Your task to perform on an android device: refresh tabs in the chrome app Image 0: 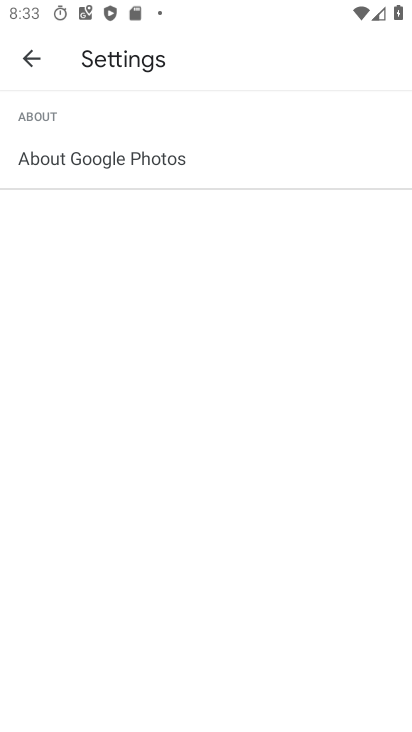
Step 0: click (32, 53)
Your task to perform on an android device: refresh tabs in the chrome app Image 1: 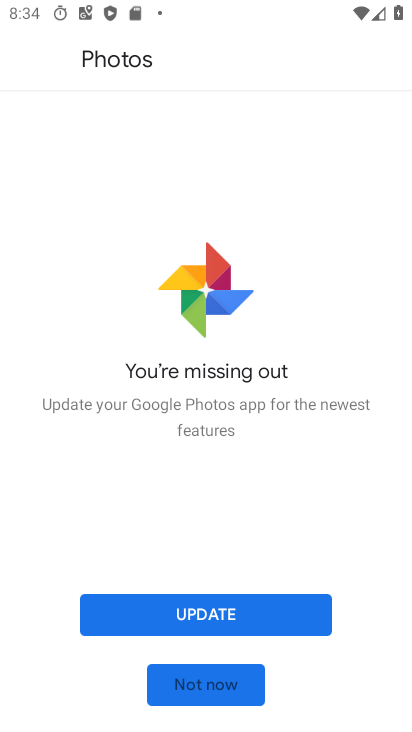
Step 1: press back button
Your task to perform on an android device: refresh tabs in the chrome app Image 2: 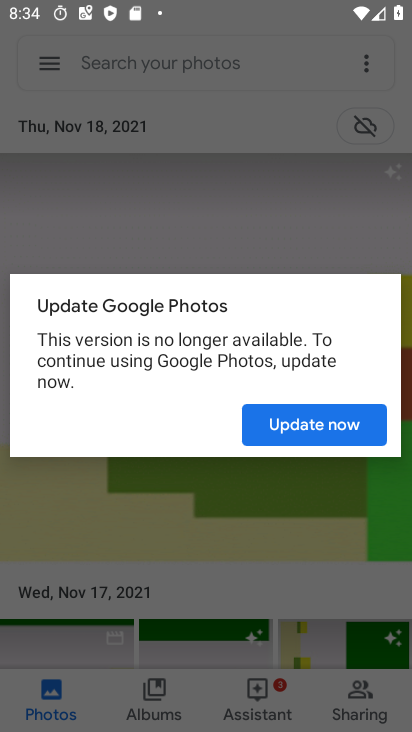
Step 2: click (304, 182)
Your task to perform on an android device: refresh tabs in the chrome app Image 3: 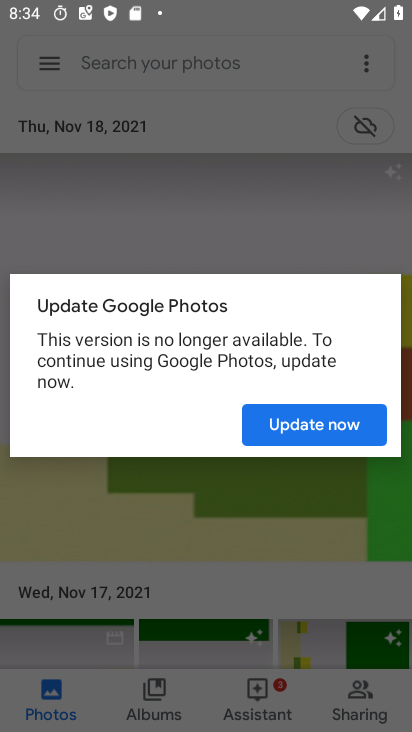
Step 3: click (304, 182)
Your task to perform on an android device: refresh tabs in the chrome app Image 4: 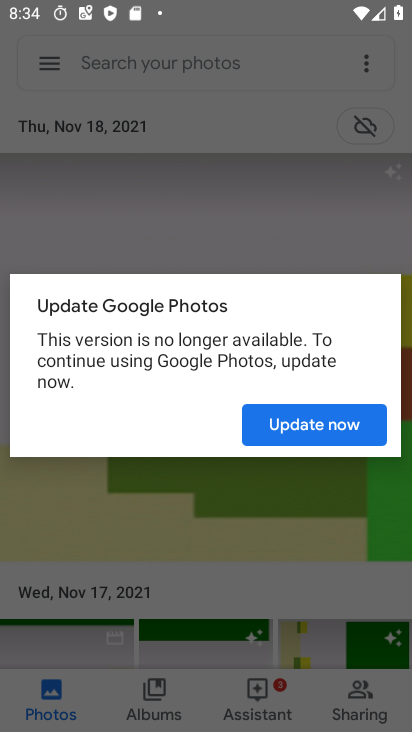
Step 4: click (289, 185)
Your task to perform on an android device: refresh tabs in the chrome app Image 5: 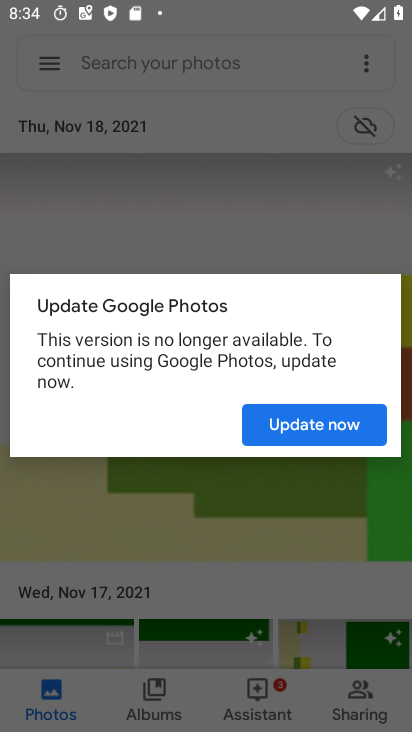
Step 5: click (290, 186)
Your task to perform on an android device: refresh tabs in the chrome app Image 6: 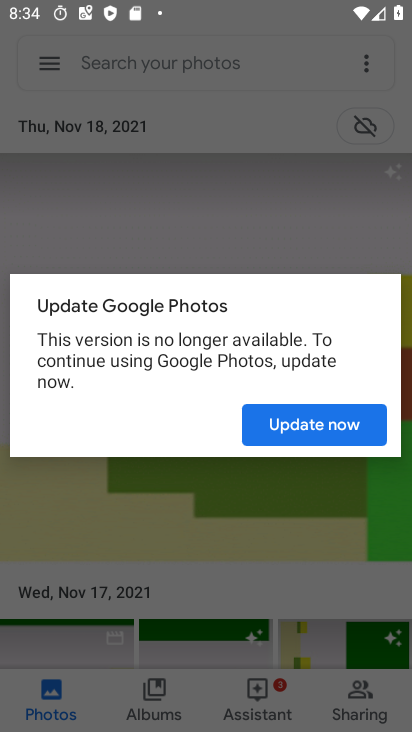
Step 6: click (290, 190)
Your task to perform on an android device: refresh tabs in the chrome app Image 7: 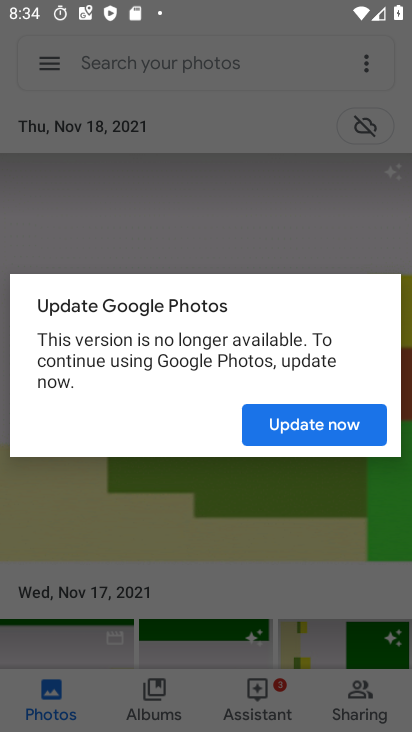
Step 7: press back button
Your task to perform on an android device: refresh tabs in the chrome app Image 8: 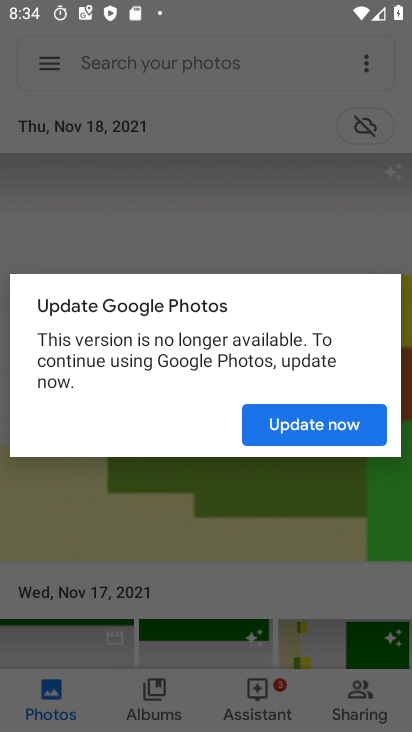
Step 8: press back button
Your task to perform on an android device: refresh tabs in the chrome app Image 9: 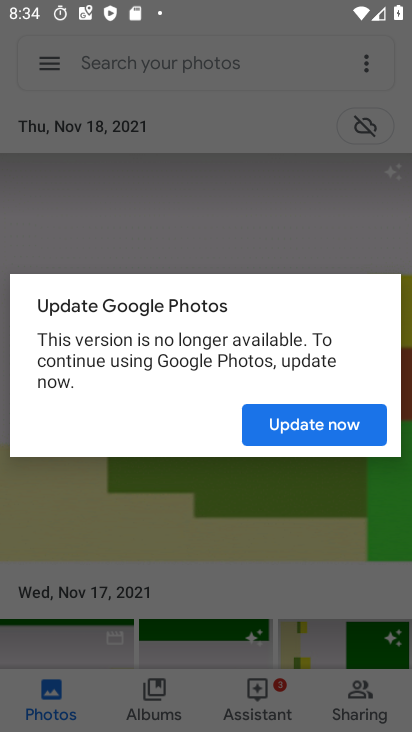
Step 9: press back button
Your task to perform on an android device: refresh tabs in the chrome app Image 10: 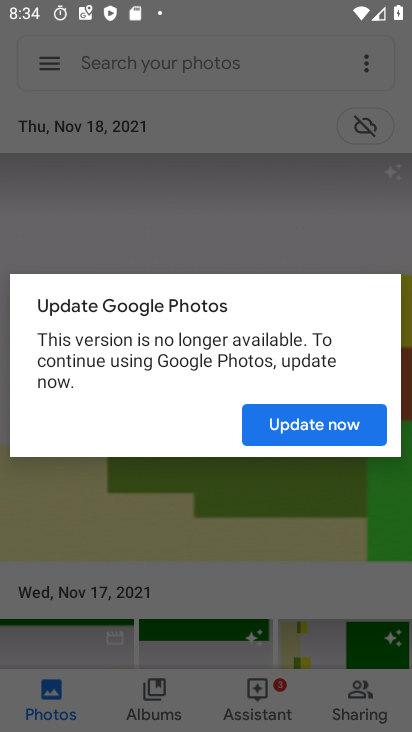
Step 10: press home button
Your task to perform on an android device: refresh tabs in the chrome app Image 11: 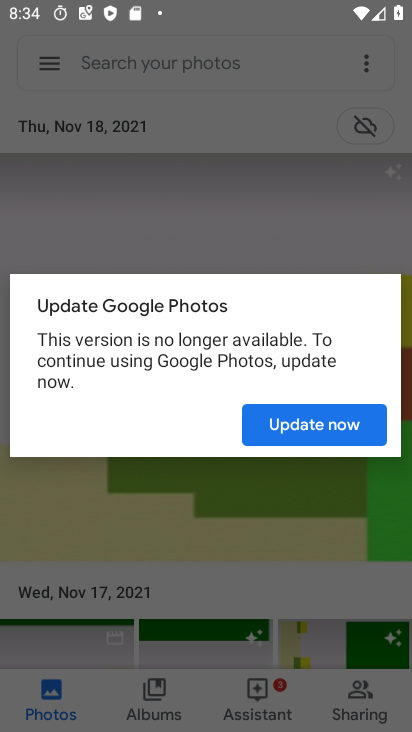
Step 11: press home button
Your task to perform on an android device: refresh tabs in the chrome app Image 12: 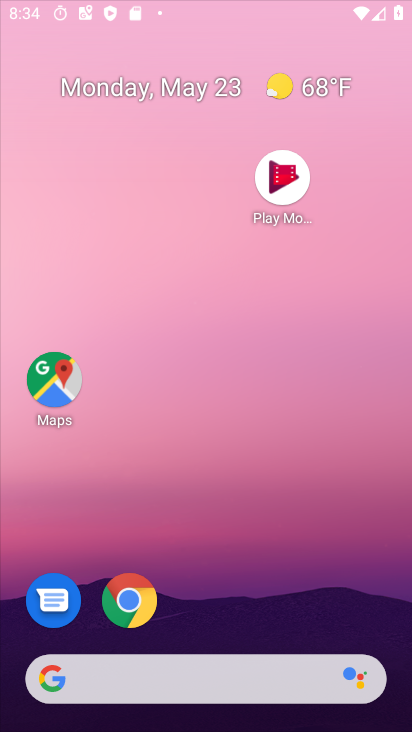
Step 12: press home button
Your task to perform on an android device: refresh tabs in the chrome app Image 13: 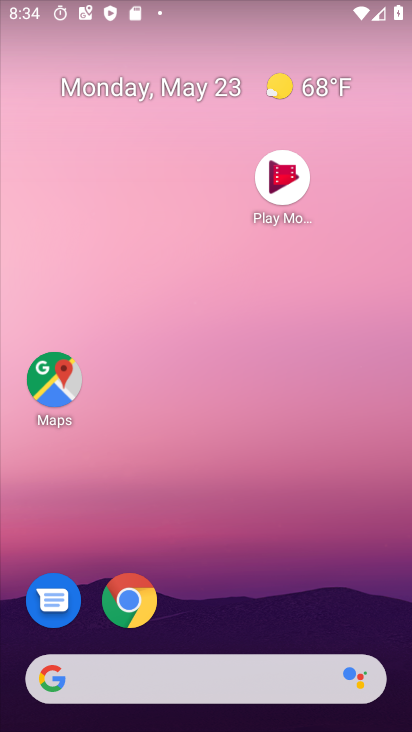
Step 13: drag from (293, 694) to (200, 169)
Your task to perform on an android device: refresh tabs in the chrome app Image 14: 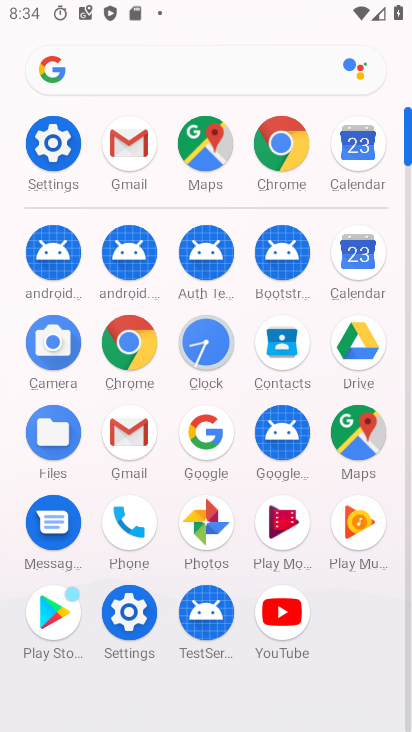
Step 14: drag from (276, 143) to (246, 319)
Your task to perform on an android device: refresh tabs in the chrome app Image 15: 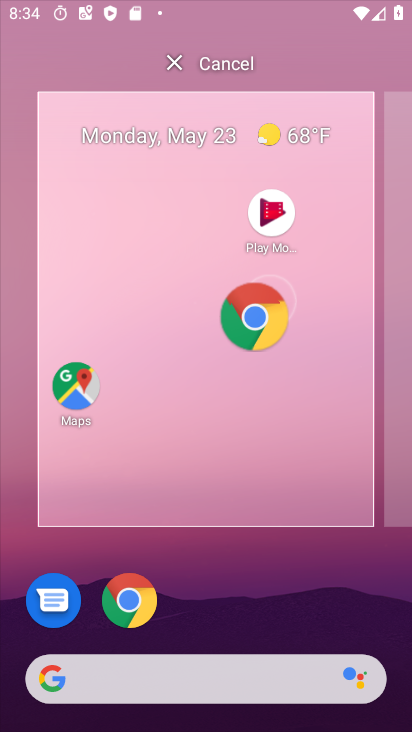
Step 15: click (224, 332)
Your task to perform on an android device: refresh tabs in the chrome app Image 16: 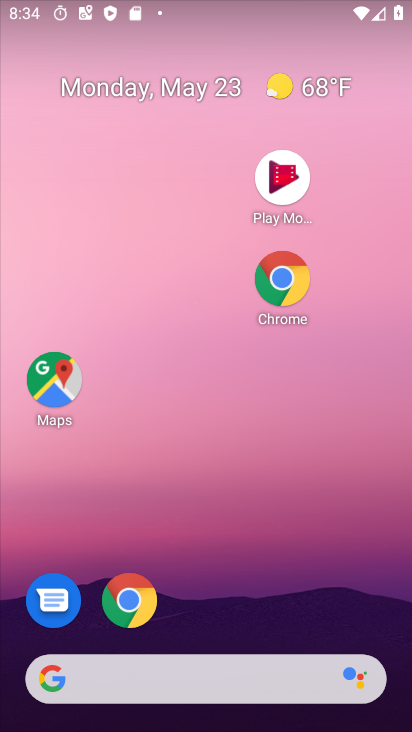
Step 16: drag from (341, 663) to (245, 221)
Your task to perform on an android device: refresh tabs in the chrome app Image 17: 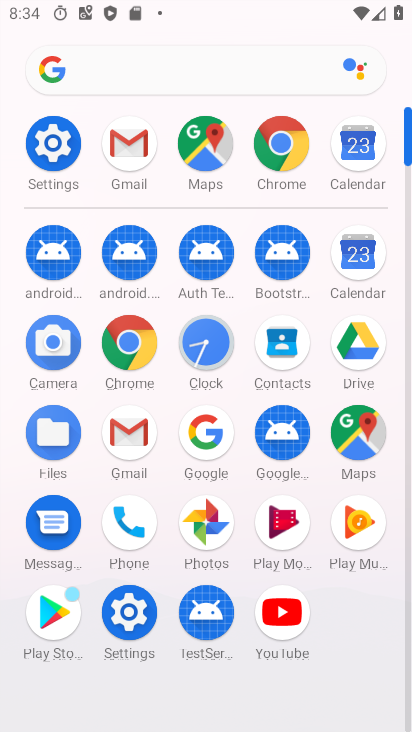
Step 17: click (280, 152)
Your task to perform on an android device: refresh tabs in the chrome app Image 18: 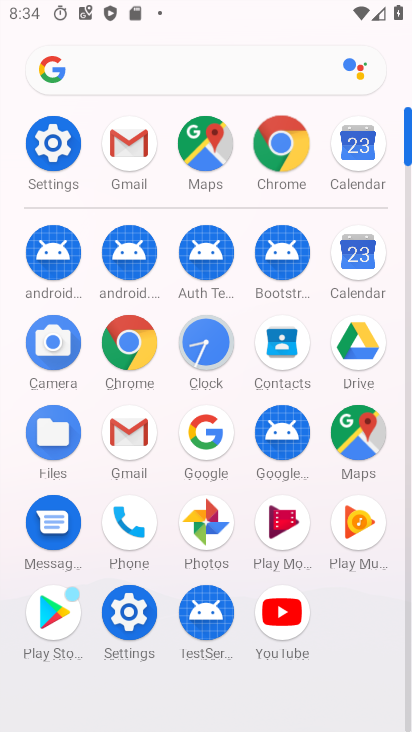
Step 18: click (280, 152)
Your task to perform on an android device: refresh tabs in the chrome app Image 19: 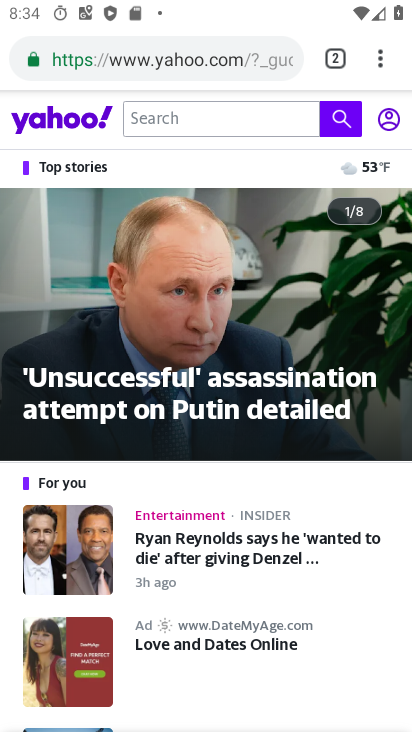
Step 19: press home button
Your task to perform on an android device: refresh tabs in the chrome app Image 20: 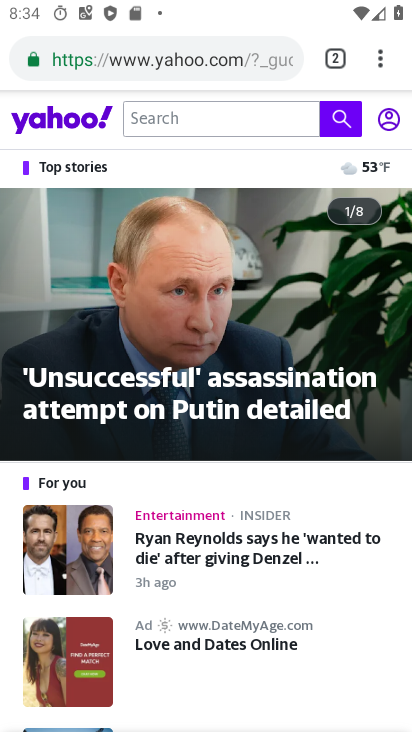
Step 20: press home button
Your task to perform on an android device: refresh tabs in the chrome app Image 21: 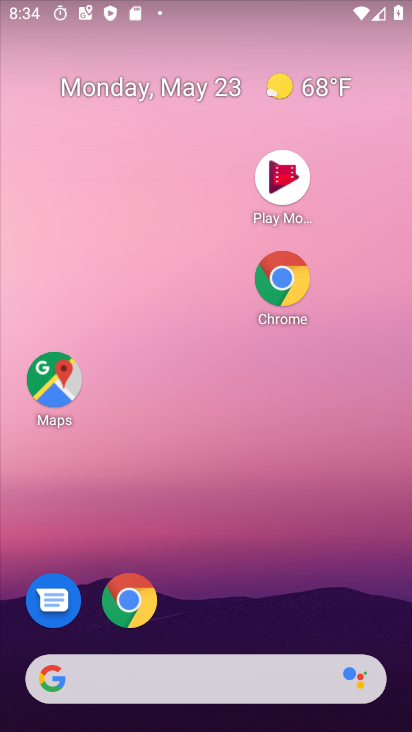
Step 21: click (134, 587)
Your task to perform on an android device: refresh tabs in the chrome app Image 22: 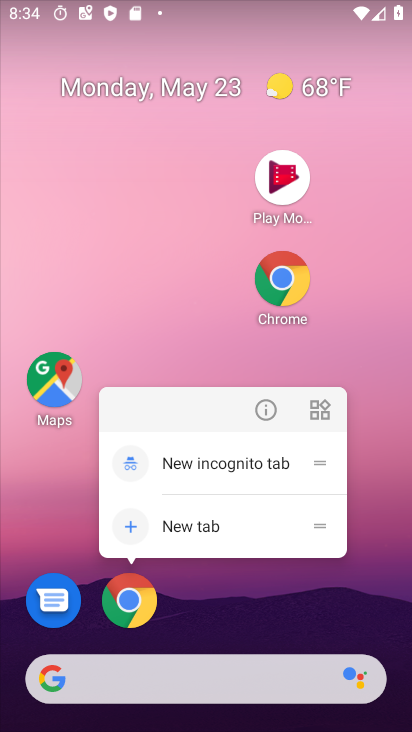
Step 22: click (269, 414)
Your task to perform on an android device: refresh tabs in the chrome app Image 23: 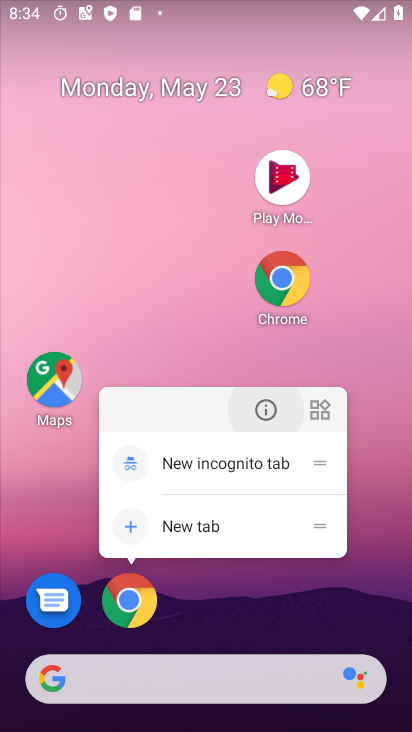
Step 23: click (269, 414)
Your task to perform on an android device: refresh tabs in the chrome app Image 24: 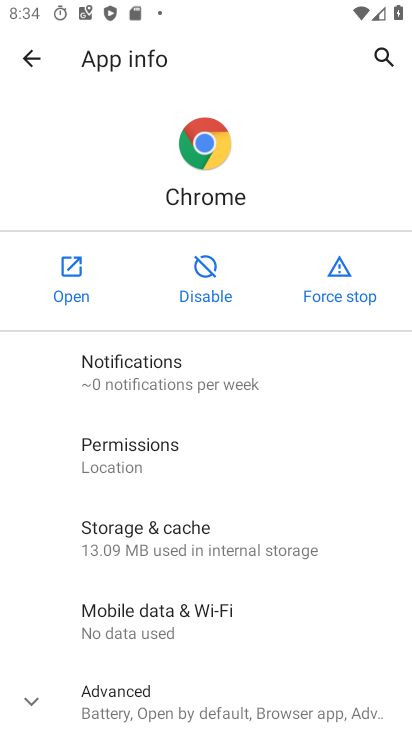
Step 24: drag from (217, 714) to (194, 450)
Your task to perform on an android device: refresh tabs in the chrome app Image 25: 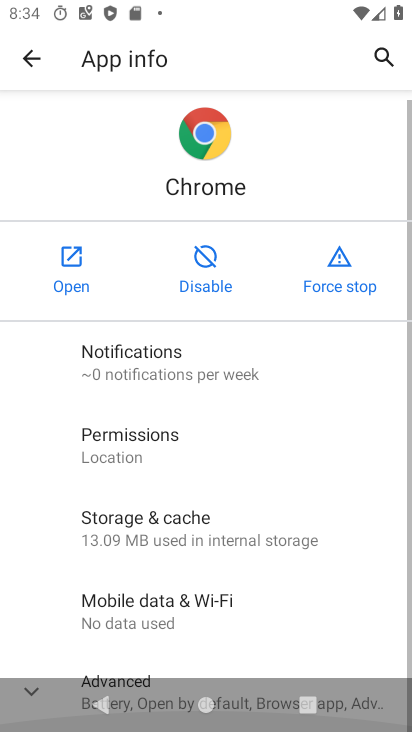
Step 25: drag from (217, 606) to (217, 326)
Your task to perform on an android device: refresh tabs in the chrome app Image 26: 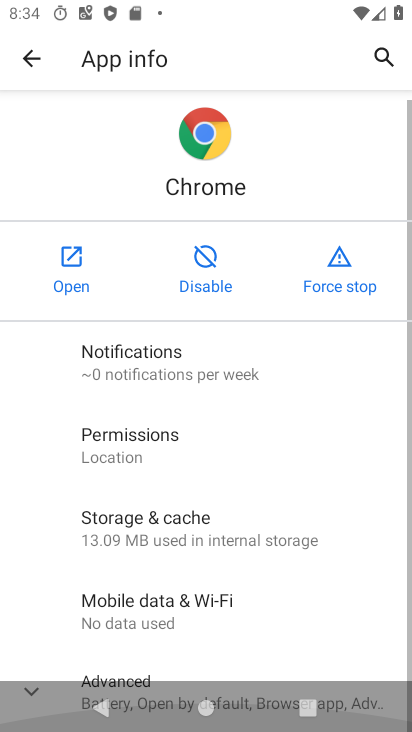
Step 26: drag from (280, 498) to (253, 188)
Your task to perform on an android device: refresh tabs in the chrome app Image 27: 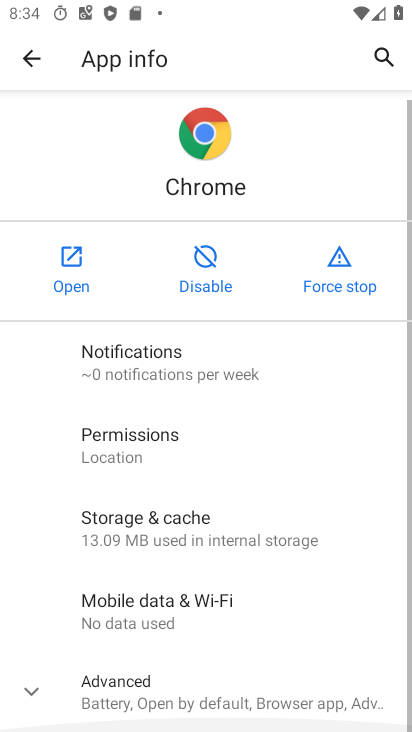
Step 27: drag from (229, 540) to (226, 269)
Your task to perform on an android device: refresh tabs in the chrome app Image 28: 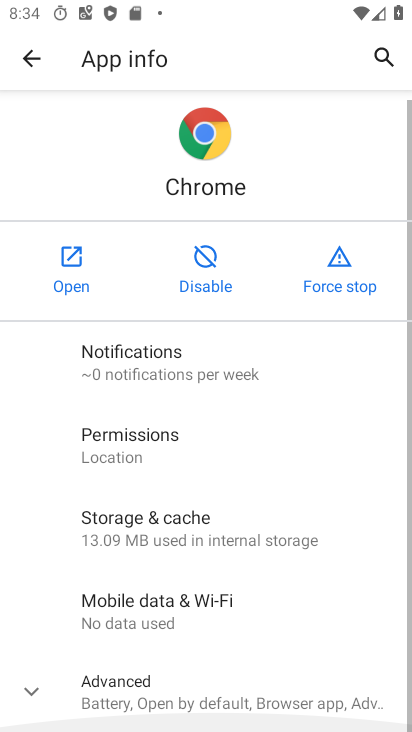
Step 28: drag from (220, 536) to (260, 273)
Your task to perform on an android device: refresh tabs in the chrome app Image 29: 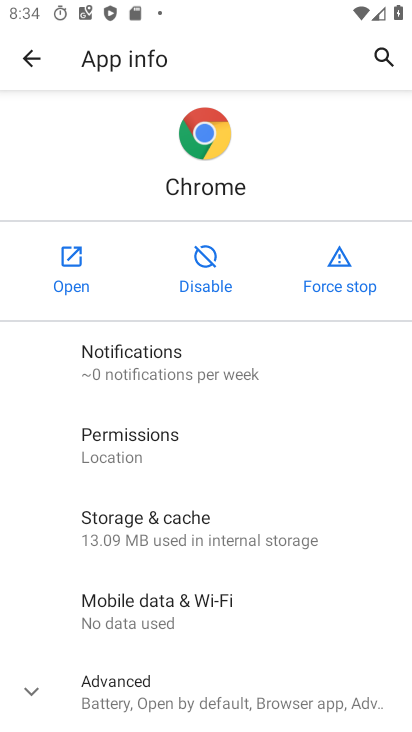
Step 29: click (121, 691)
Your task to perform on an android device: refresh tabs in the chrome app Image 30: 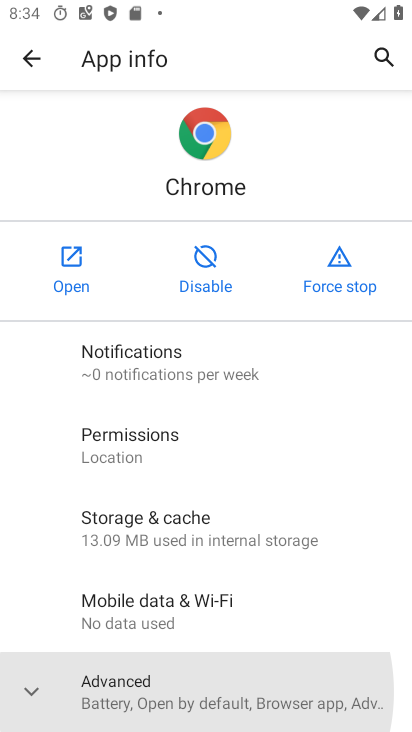
Step 30: click (126, 691)
Your task to perform on an android device: refresh tabs in the chrome app Image 31: 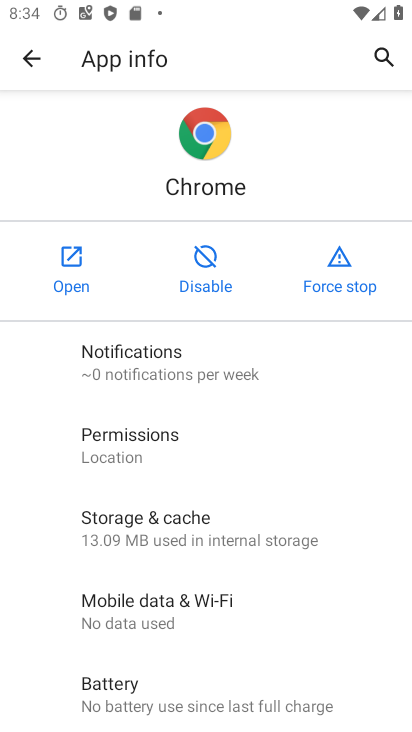
Step 31: drag from (184, 569) to (252, 248)
Your task to perform on an android device: refresh tabs in the chrome app Image 32: 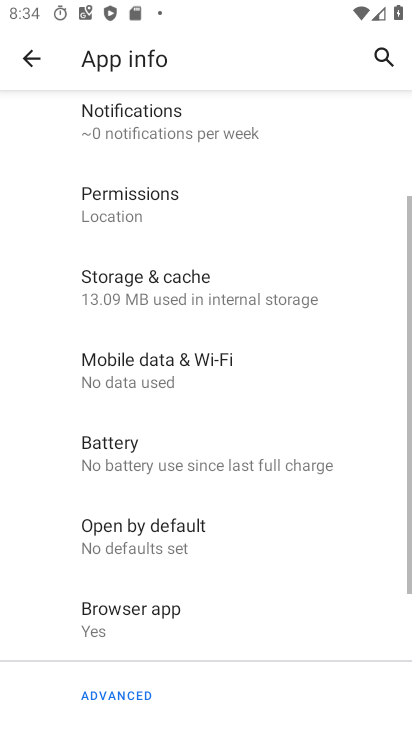
Step 32: drag from (244, 586) to (238, 328)
Your task to perform on an android device: refresh tabs in the chrome app Image 33: 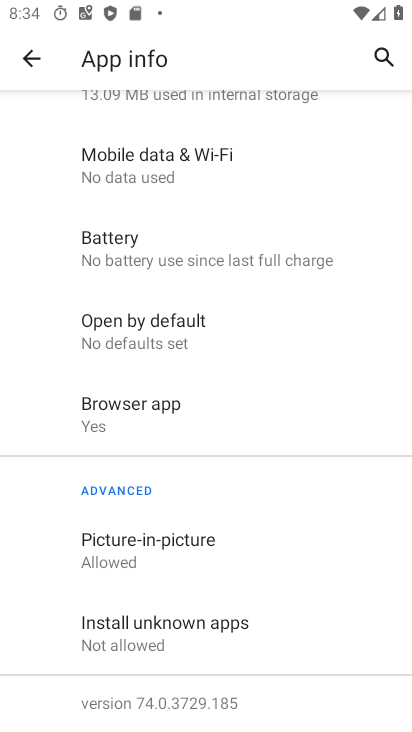
Step 33: drag from (252, 242) to (318, 550)
Your task to perform on an android device: refresh tabs in the chrome app Image 34: 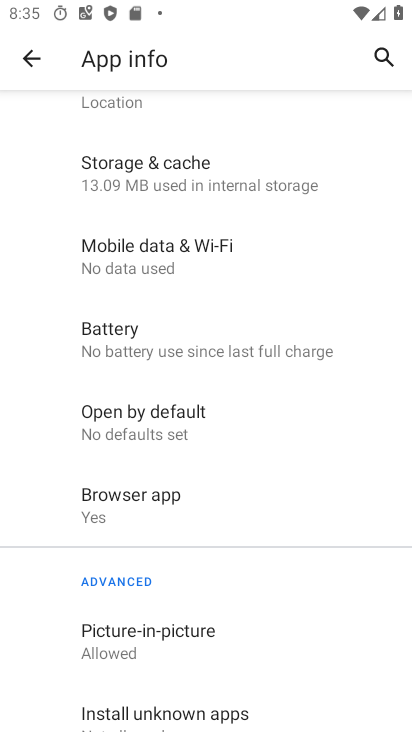
Step 34: click (25, 61)
Your task to perform on an android device: refresh tabs in the chrome app Image 35: 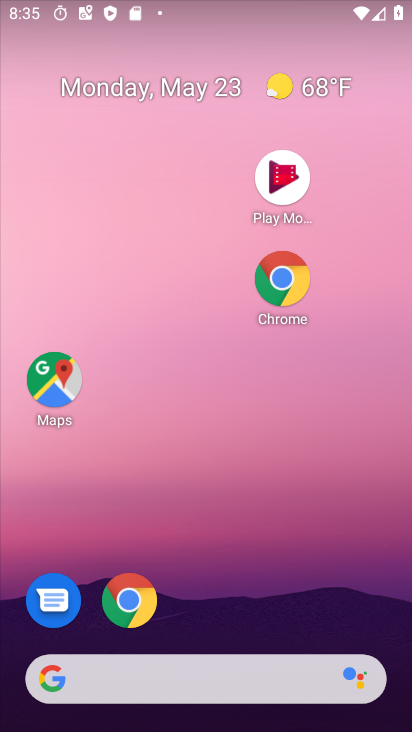
Step 35: drag from (243, 621) to (150, 142)
Your task to perform on an android device: refresh tabs in the chrome app Image 36: 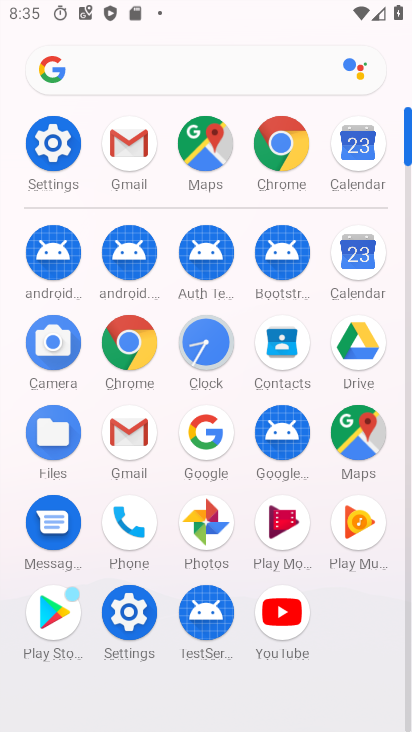
Step 36: click (277, 153)
Your task to perform on an android device: refresh tabs in the chrome app Image 37: 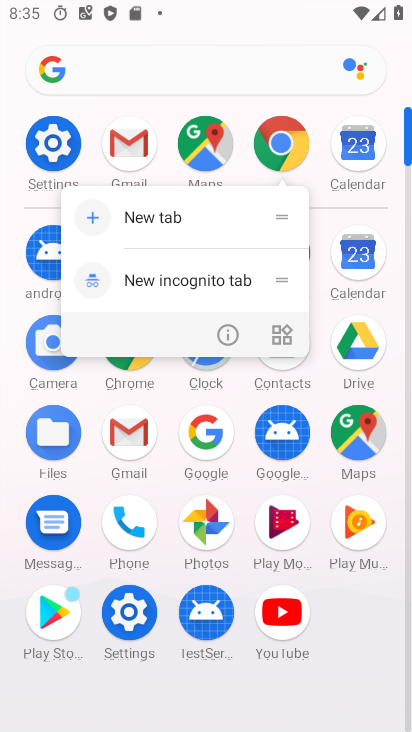
Step 37: click (286, 139)
Your task to perform on an android device: refresh tabs in the chrome app Image 38: 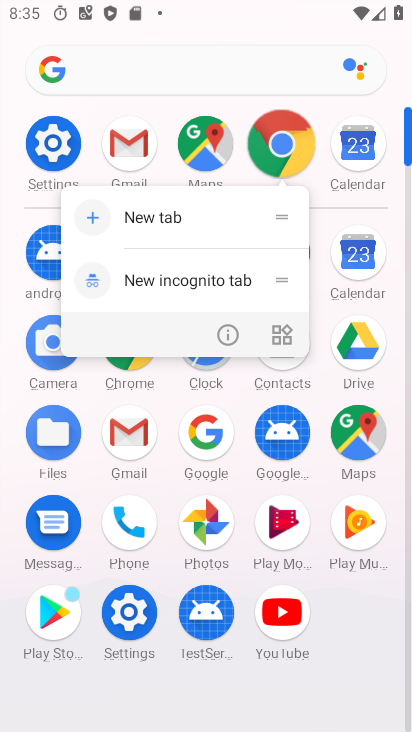
Step 38: click (286, 139)
Your task to perform on an android device: refresh tabs in the chrome app Image 39: 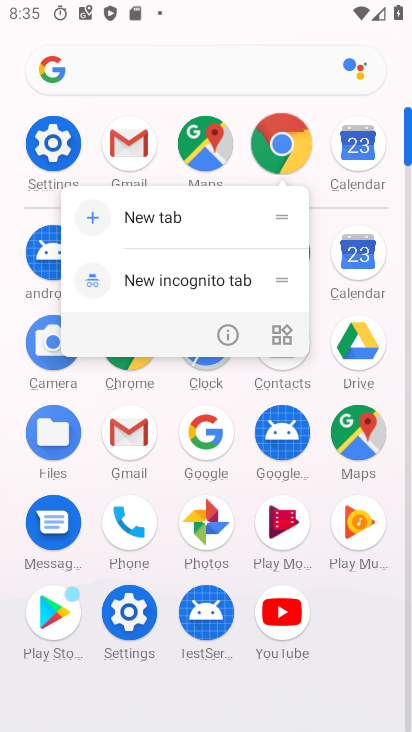
Step 39: click (286, 139)
Your task to perform on an android device: refresh tabs in the chrome app Image 40: 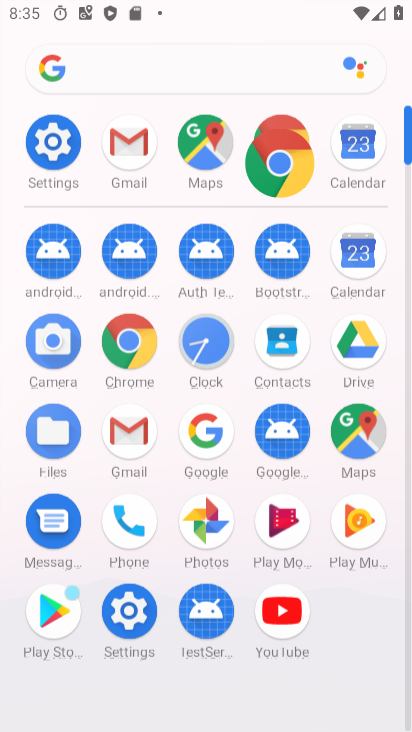
Step 40: click (288, 140)
Your task to perform on an android device: refresh tabs in the chrome app Image 41: 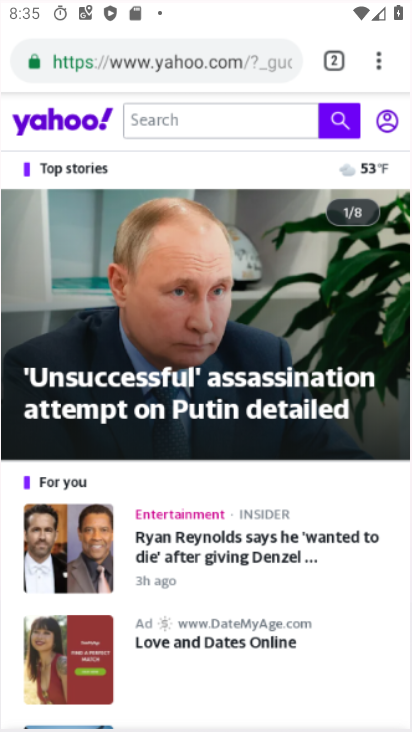
Step 41: click (288, 138)
Your task to perform on an android device: refresh tabs in the chrome app Image 42: 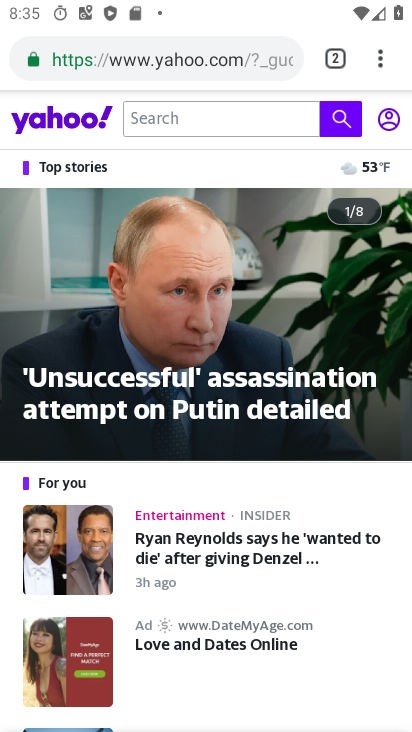
Step 42: click (378, 58)
Your task to perform on an android device: refresh tabs in the chrome app Image 43: 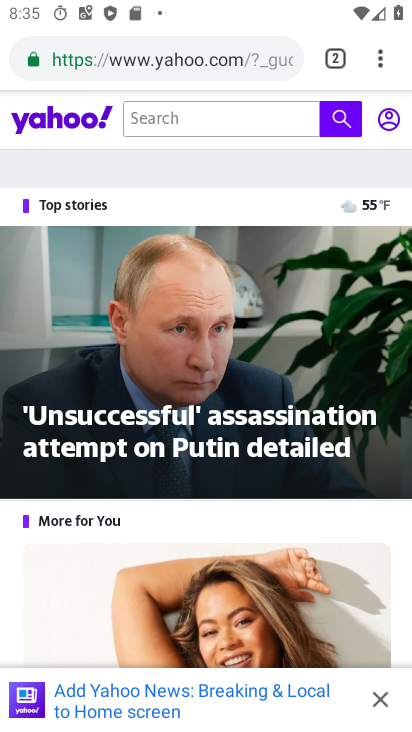
Step 43: task complete